Your task to perform on an android device: toggle sleep mode Image 0: 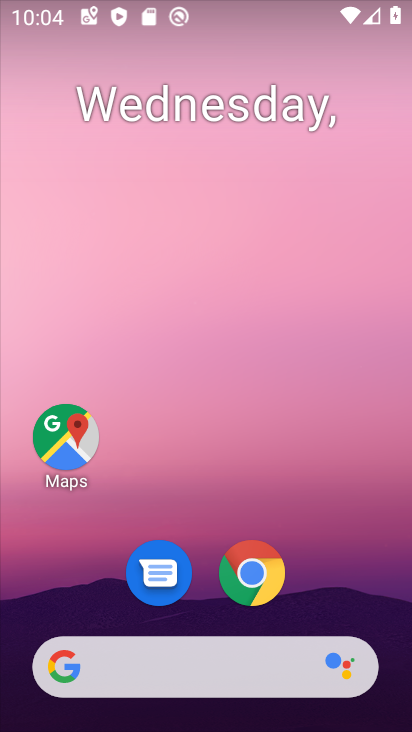
Step 0: drag from (352, 578) to (350, 234)
Your task to perform on an android device: toggle sleep mode Image 1: 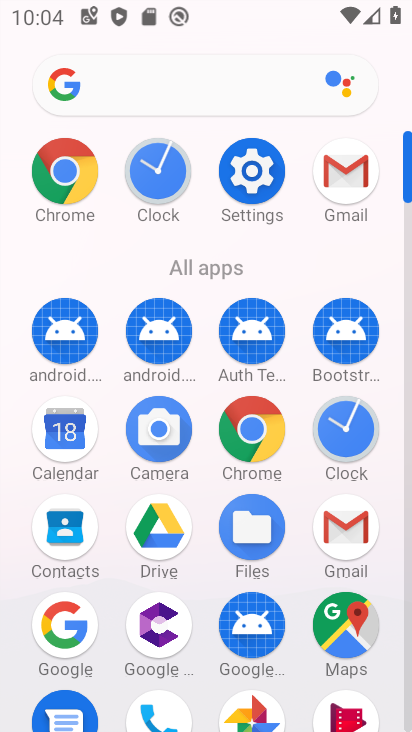
Step 1: click (268, 184)
Your task to perform on an android device: toggle sleep mode Image 2: 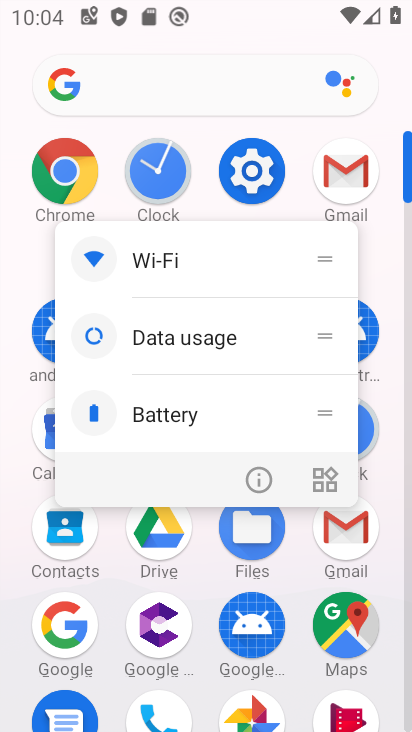
Step 2: click (268, 168)
Your task to perform on an android device: toggle sleep mode Image 3: 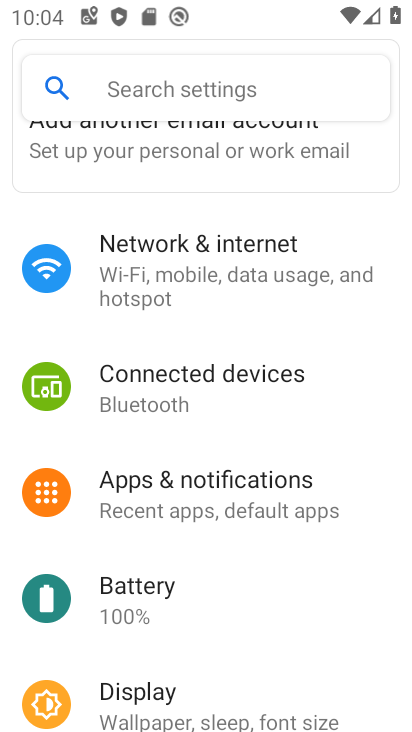
Step 3: drag from (372, 536) to (375, 439)
Your task to perform on an android device: toggle sleep mode Image 4: 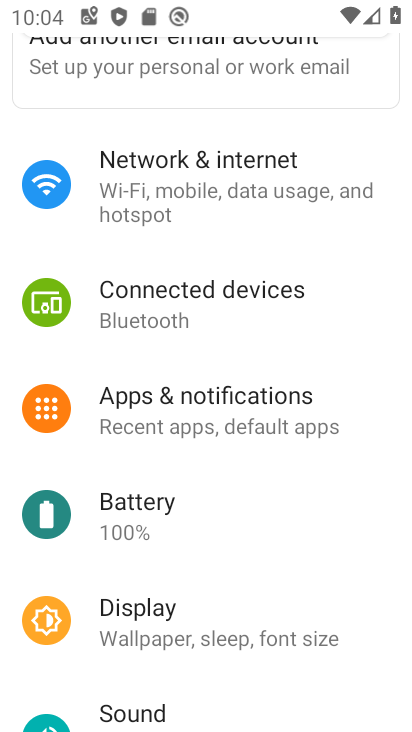
Step 4: drag from (365, 561) to (355, 439)
Your task to perform on an android device: toggle sleep mode Image 5: 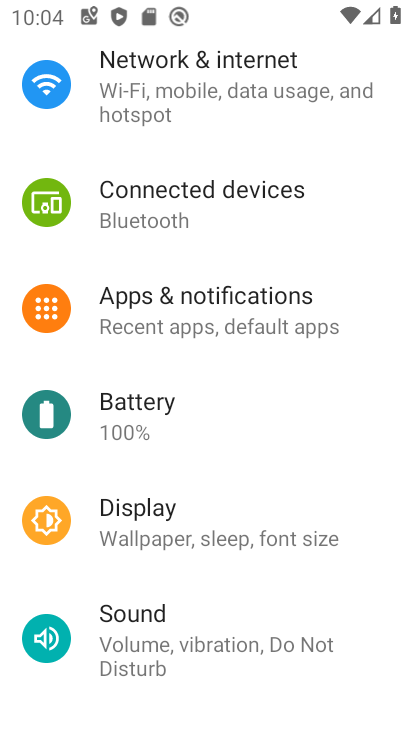
Step 5: drag from (353, 557) to (355, 447)
Your task to perform on an android device: toggle sleep mode Image 6: 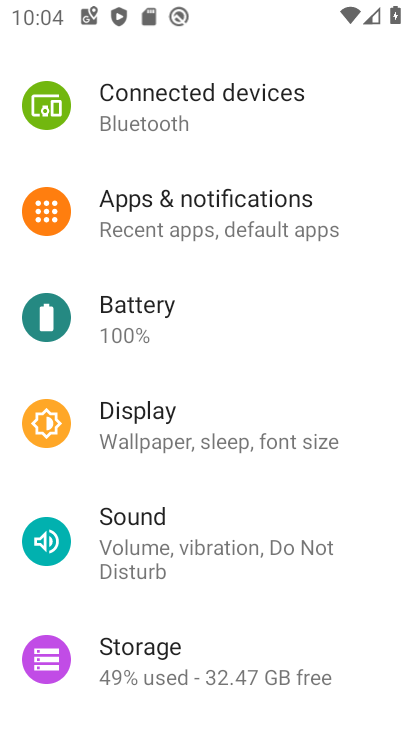
Step 6: drag from (372, 581) to (365, 462)
Your task to perform on an android device: toggle sleep mode Image 7: 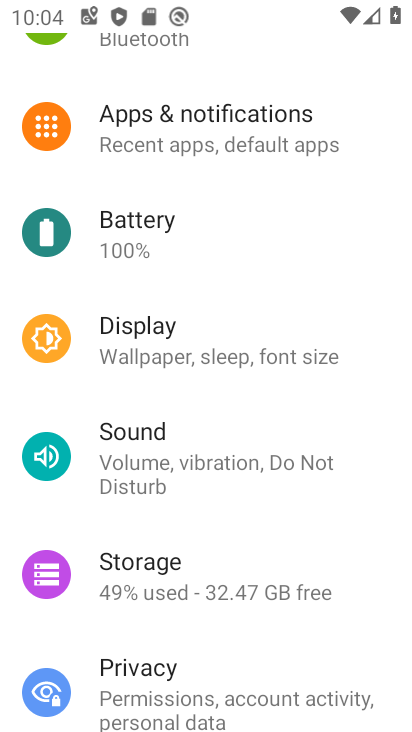
Step 7: drag from (350, 626) to (353, 484)
Your task to perform on an android device: toggle sleep mode Image 8: 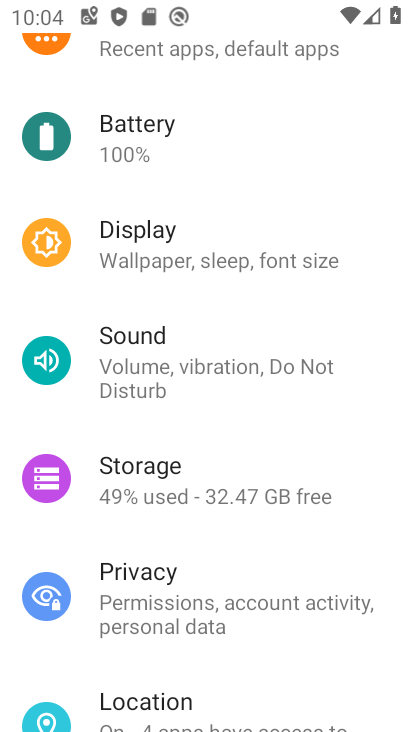
Step 8: drag from (339, 645) to (352, 488)
Your task to perform on an android device: toggle sleep mode Image 9: 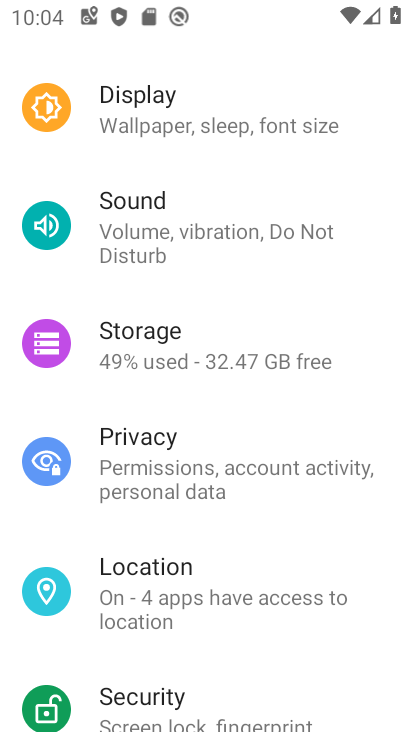
Step 9: drag from (343, 650) to (349, 482)
Your task to perform on an android device: toggle sleep mode Image 10: 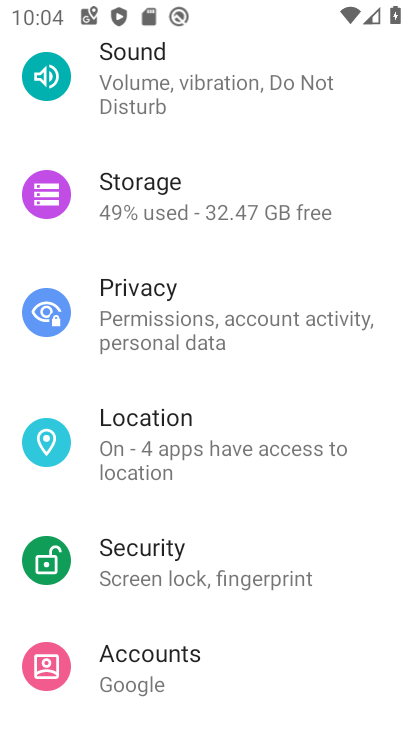
Step 10: drag from (345, 660) to (340, 511)
Your task to perform on an android device: toggle sleep mode Image 11: 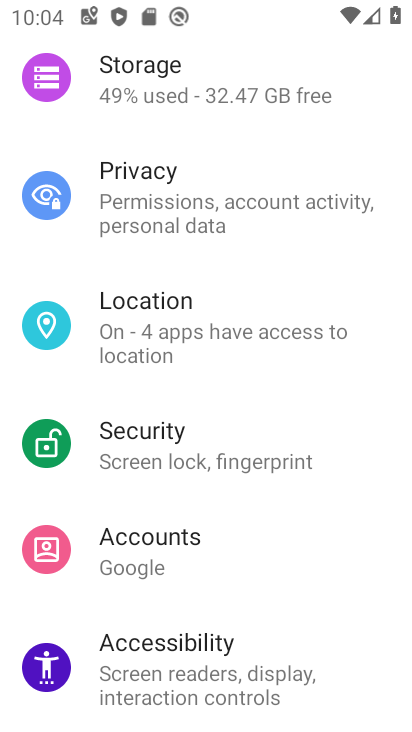
Step 11: drag from (335, 634) to (341, 500)
Your task to perform on an android device: toggle sleep mode Image 12: 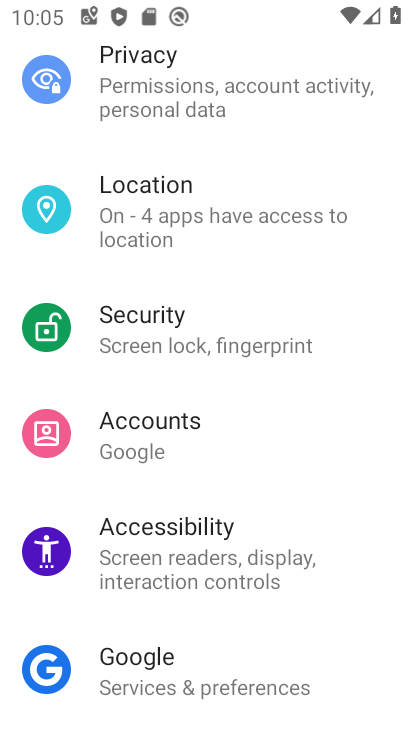
Step 12: drag from (322, 630) to (337, 506)
Your task to perform on an android device: toggle sleep mode Image 13: 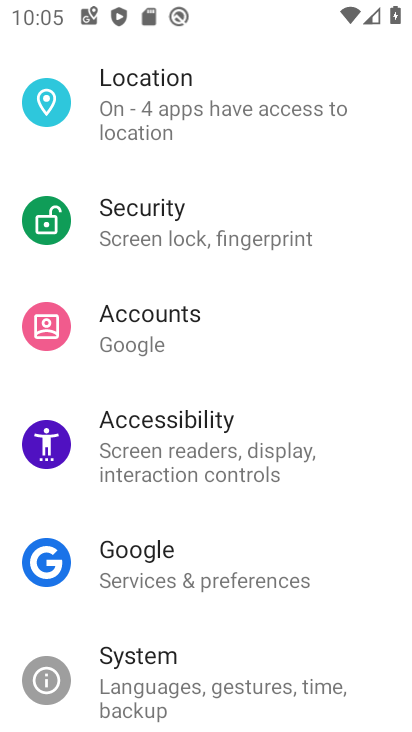
Step 13: drag from (328, 654) to (336, 518)
Your task to perform on an android device: toggle sleep mode Image 14: 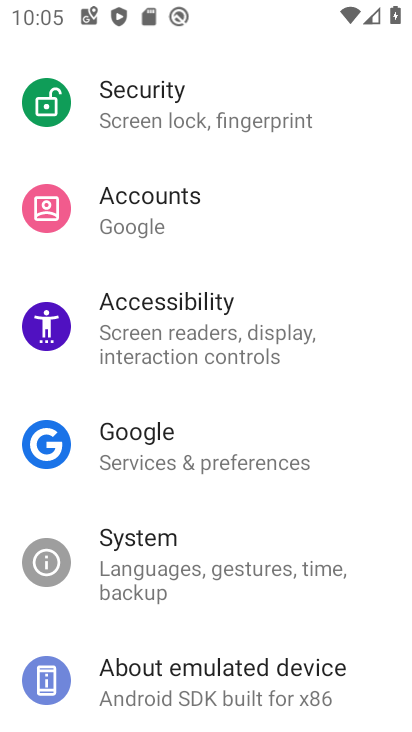
Step 14: drag from (352, 694) to (363, 511)
Your task to perform on an android device: toggle sleep mode Image 15: 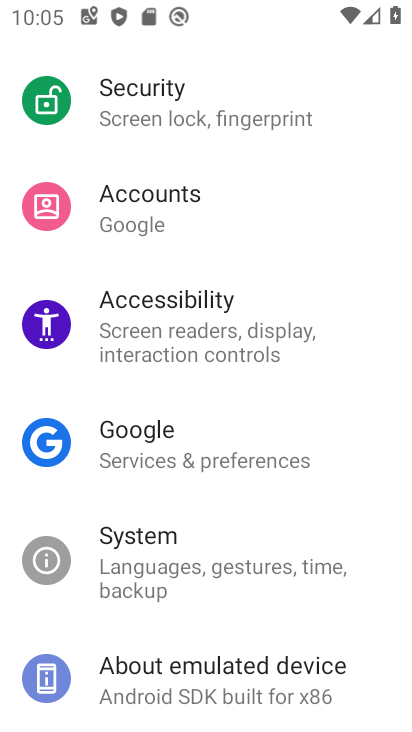
Step 15: drag from (353, 382) to (353, 541)
Your task to perform on an android device: toggle sleep mode Image 16: 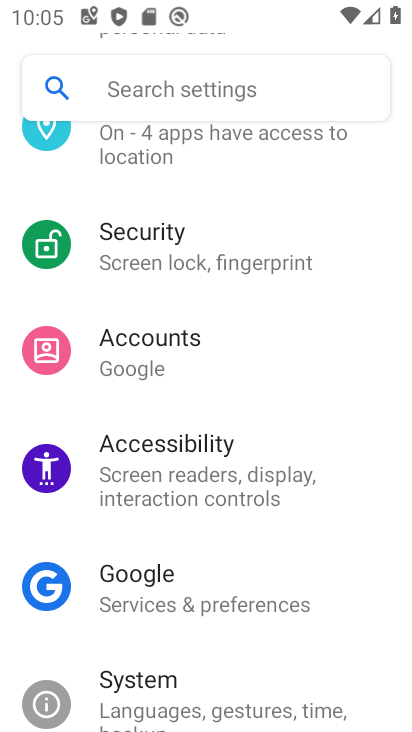
Step 16: drag from (343, 399) to (332, 573)
Your task to perform on an android device: toggle sleep mode Image 17: 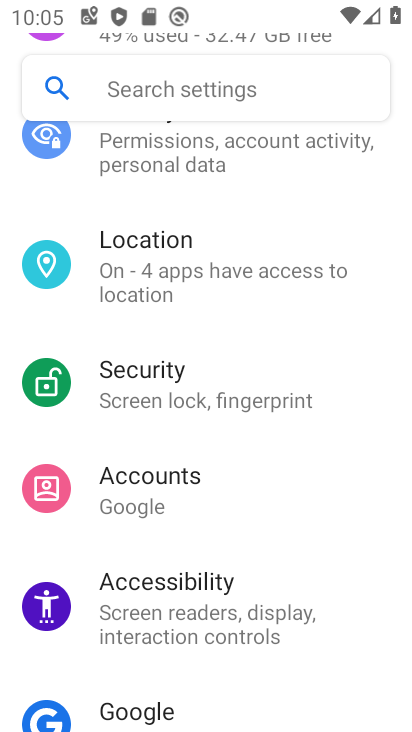
Step 17: drag from (347, 370) to (347, 458)
Your task to perform on an android device: toggle sleep mode Image 18: 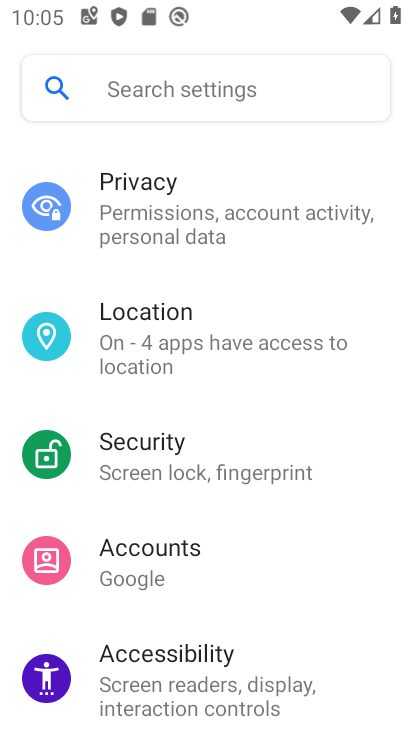
Step 18: drag from (362, 315) to (362, 420)
Your task to perform on an android device: toggle sleep mode Image 19: 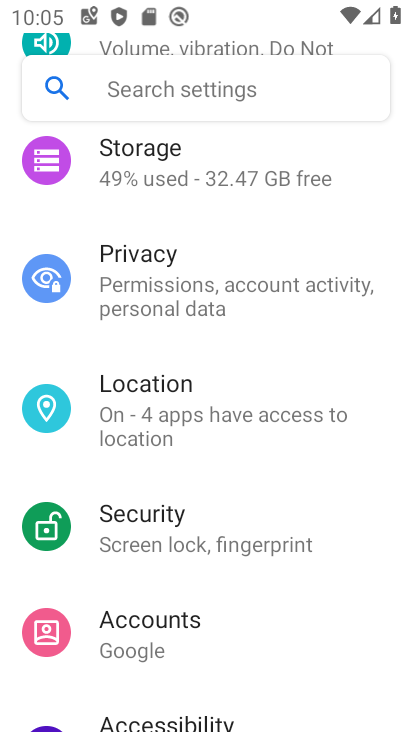
Step 19: drag from (361, 308) to (360, 409)
Your task to perform on an android device: toggle sleep mode Image 20: 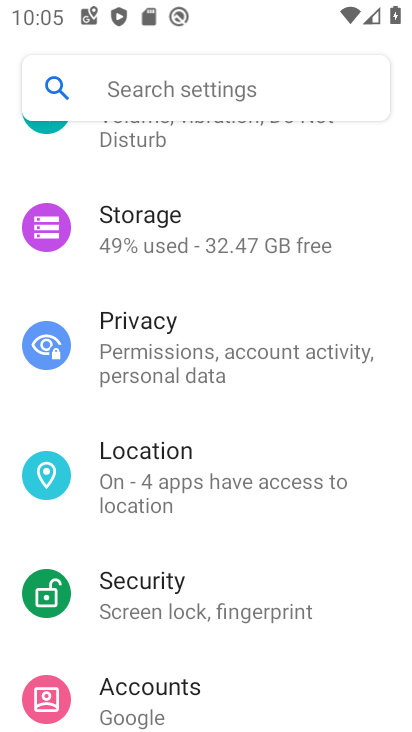
Step 20: drag from (356, 353) to (358, 394)
Your task to perform on an android device: toggle sleep mode Image 21: 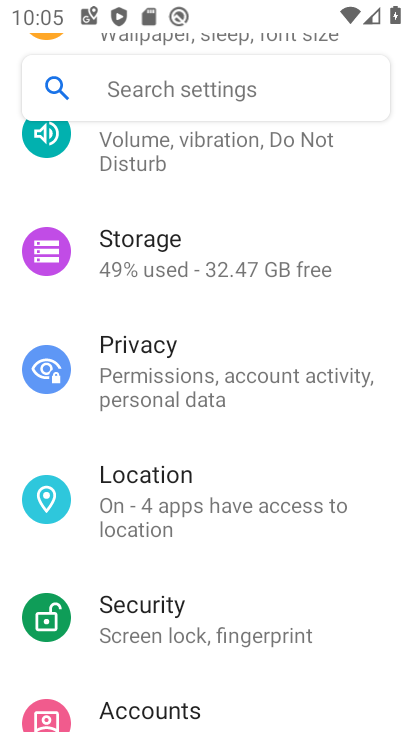
Step 21: drag from (355, 268) to (353, 411)
Your task to perform on an android device: toggle sleep mode Image 22: 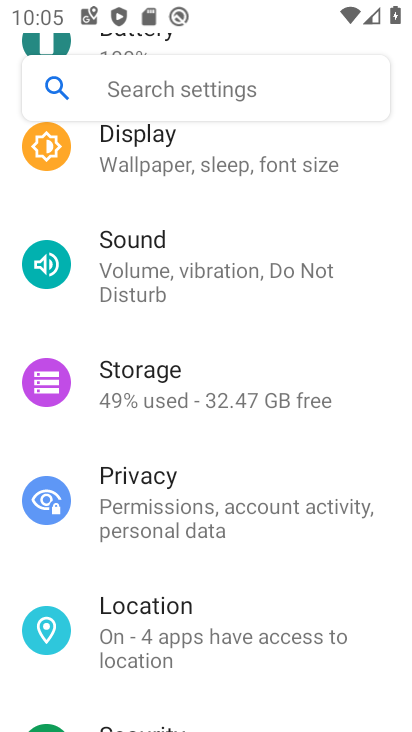
Step 22: drag from (363, 263) to (351, 371)
Your task to perform on an android device: toggle sleep mode Image 23: 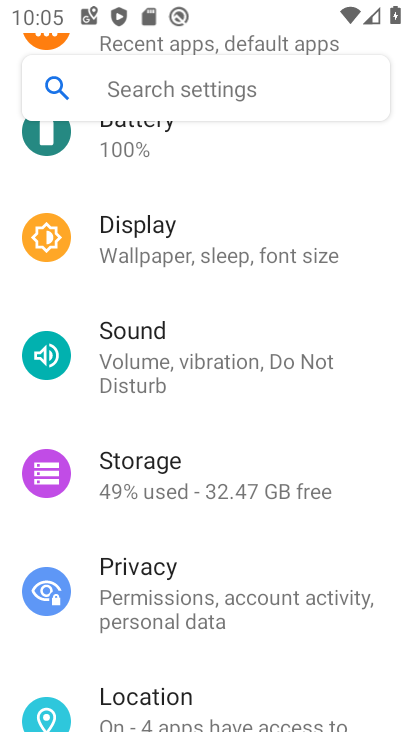
Step 23: drag from (359, 237) to (352, 347)
Your task to perform on an android device: toggle sleep mode Image 24: 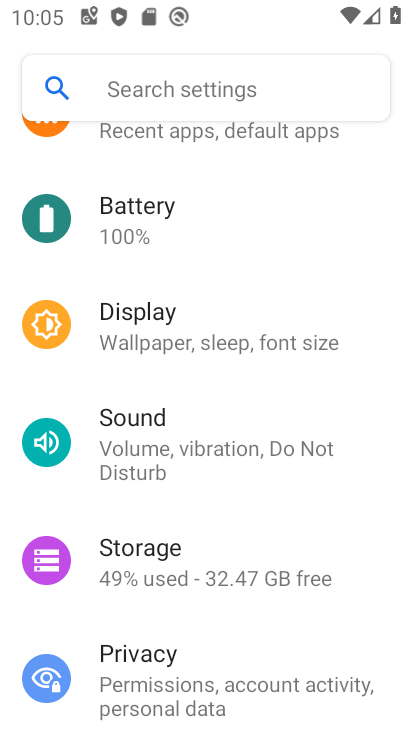
Step 24: drag from (349, 239) to (353, 346)
Your task to perform on an android device: toggle sleep mode Image 25: 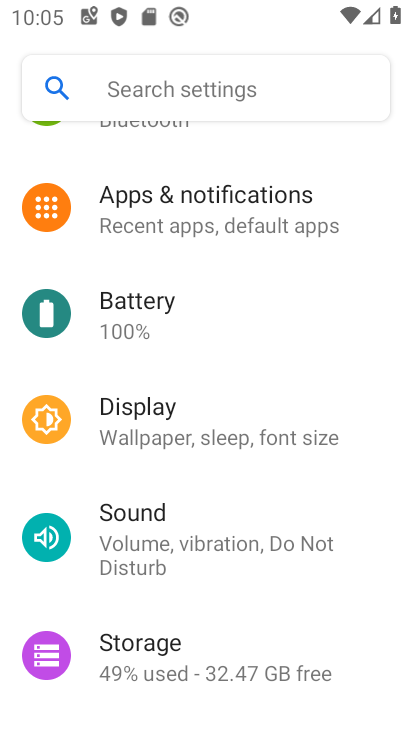
Step 25: click (279, 427)
Your task to perform on an android device: toggle sleep mode Image 26: 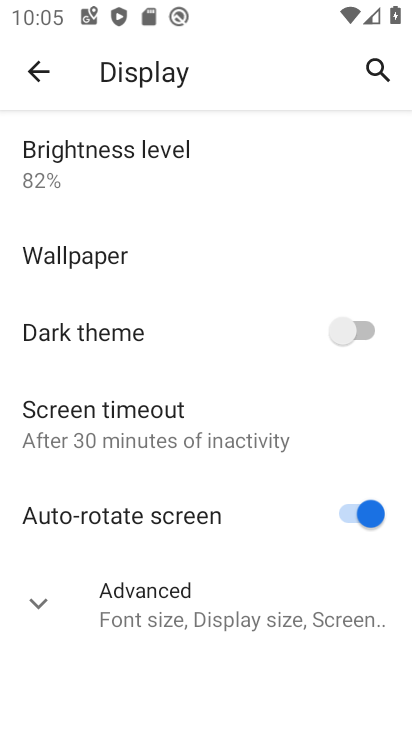
Step 26: click (217, 623)
Your task to perform on an android device: toggle sleep mode Image 27: 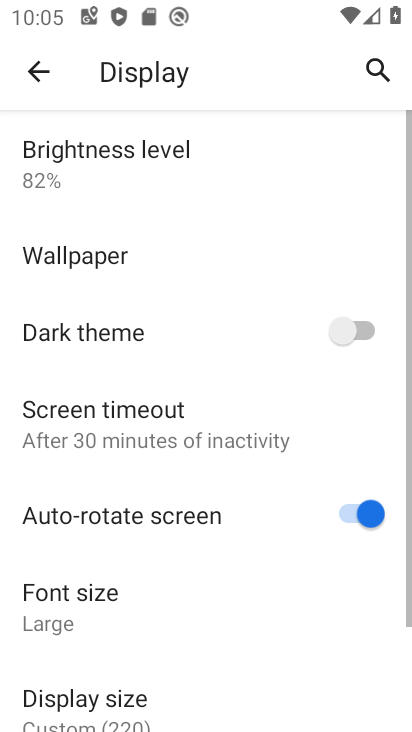
Step 27: task complete